Your task to perform on an android device: turn on showing notifications on the lock screen Image 0: 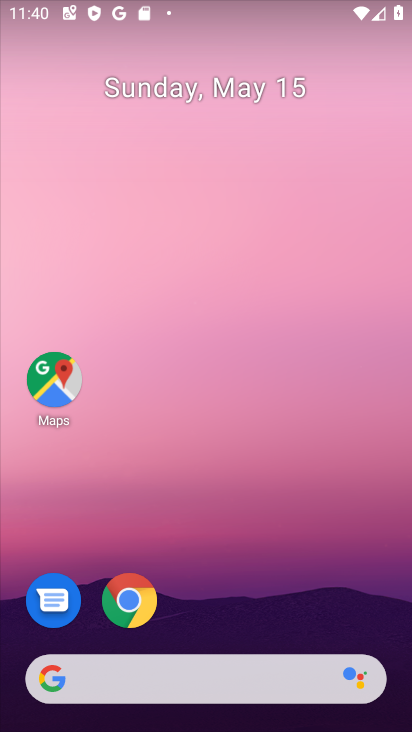
Step 0: drag from (233, 667) to (241, 7)
Your task to perform on an android device: turn on showing notifications on the lock screen Image 1: 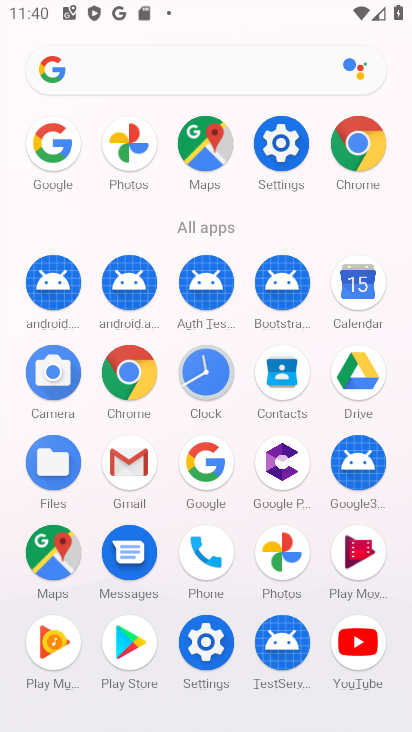
Step 1: click (277, 156)
Your task to perform on an android device: turn on showing notifications on the lock screen Image 2: 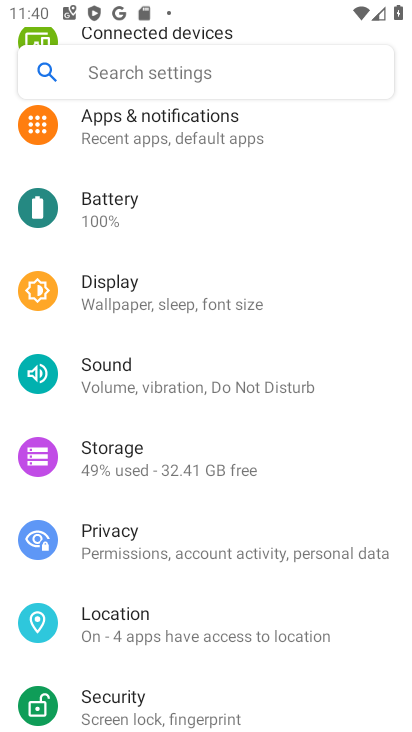
Step 2: click (118, 140)
Your task to perform on an android device: turn on showing notifications on the lock screen Image 3: 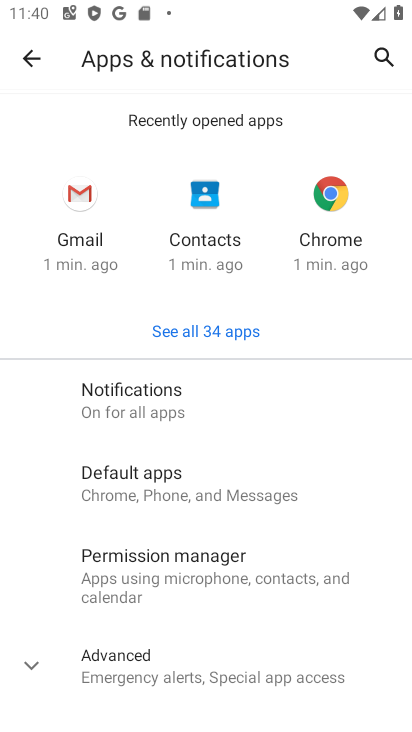
Step 3: click (147, 410)
Your task to perform on an android device: turn on showing notifications on the lock screen Image 4: 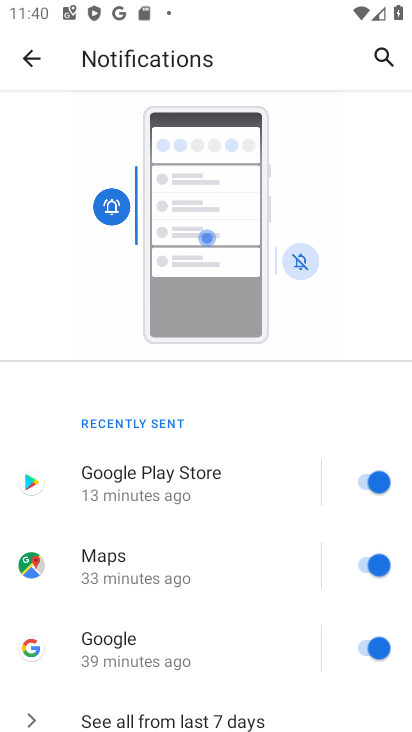
Step 4: drag from (170, 652) to (223, 133)
Your task to perform on an android device: turn on showing notifications on the lock screen Image 5: 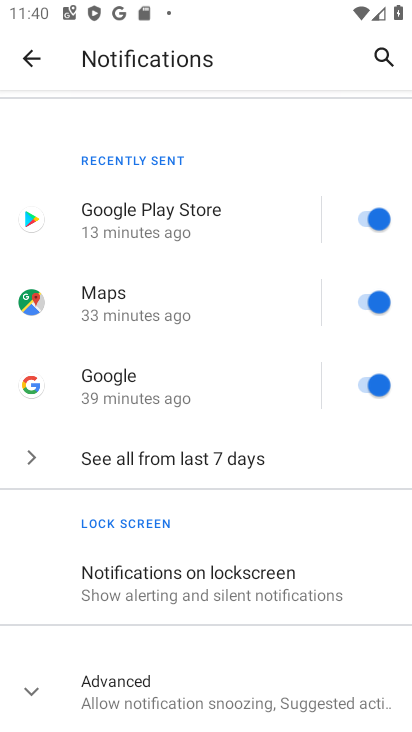
Step 5: click (247, 592)
Your task to perform on an android device: turn on showing notifications on the lock screen Image 6: 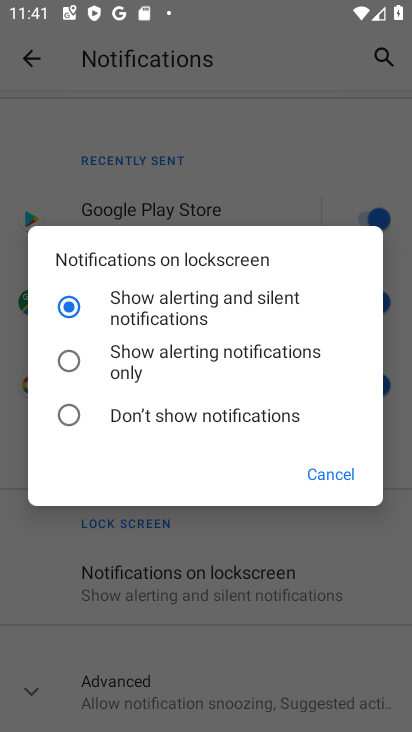
Step 6: click (132, 317)
Your task to perform on an android device: turn on showing notifications on the lock screen Image 7: 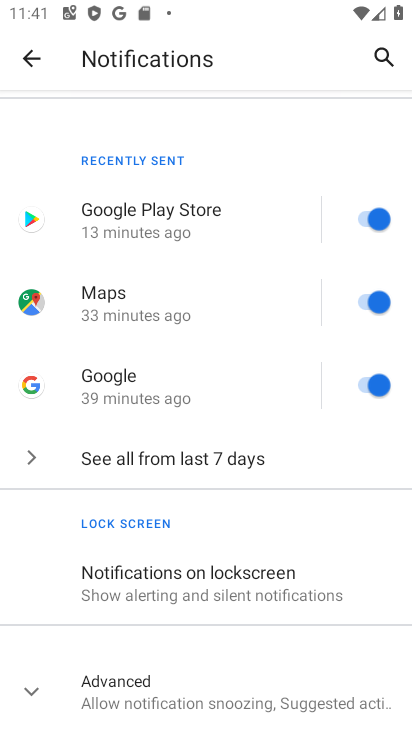
Step 7: task complete